Your task to perform on an android device: Open maps Image 0: 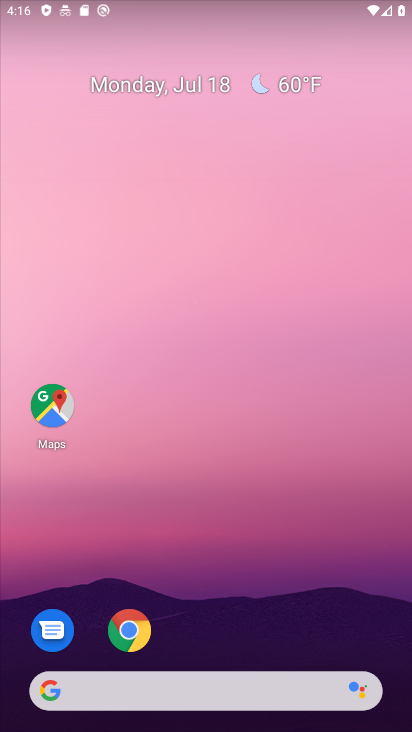
Step 0: drag from (247, 690) to (171, 144)
Your task to perform on an android device: Open maps Image 1: 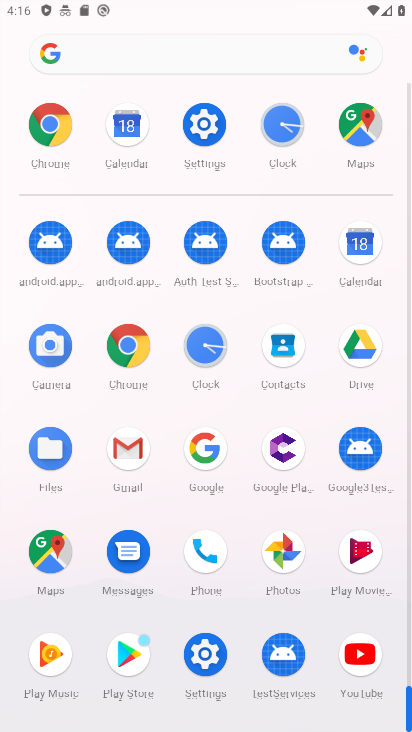
Step 1: click (50, 549)
Your task to perform on an android device: Open maps Image 2: 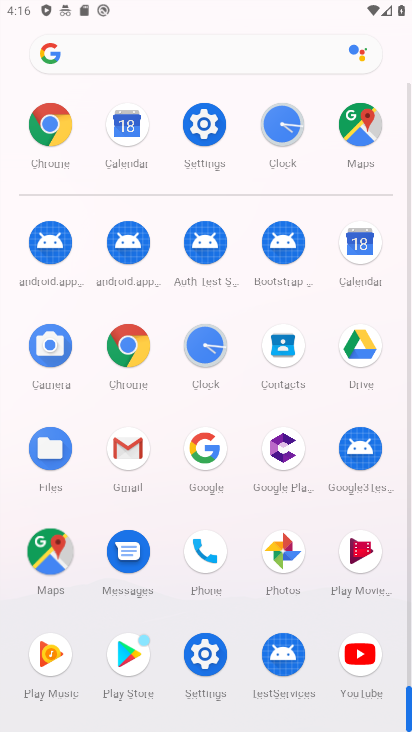
Step 2: click (52, 554)
Your task to perform on an android device: Open maps Image 3: 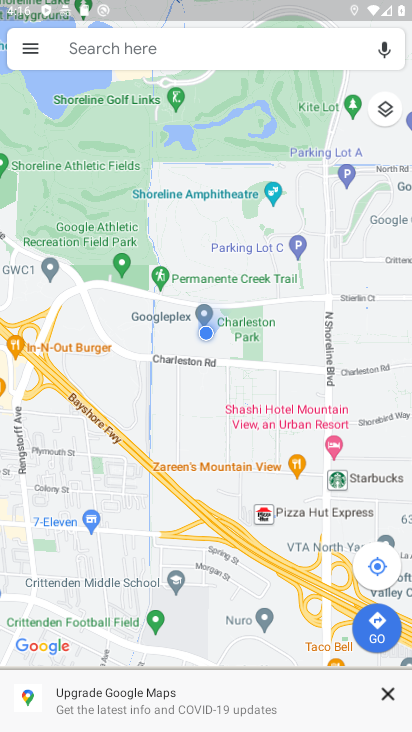
Step 3: task complete